Your task to perform on an android device: Open battery settings Image 0: 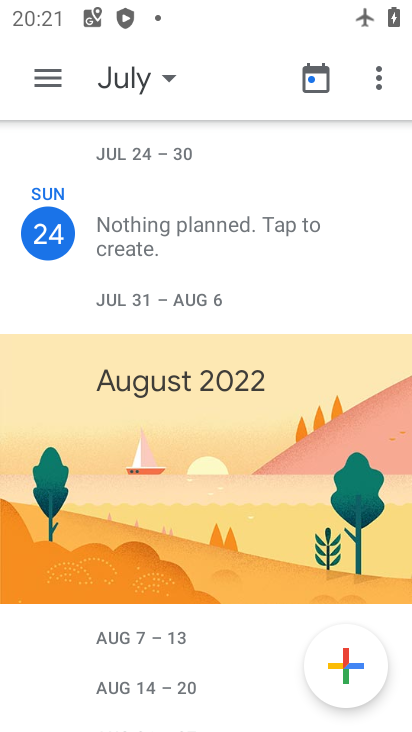
Step 0: press home button
Your task to perform on an android device: Open battery settings Image 1: 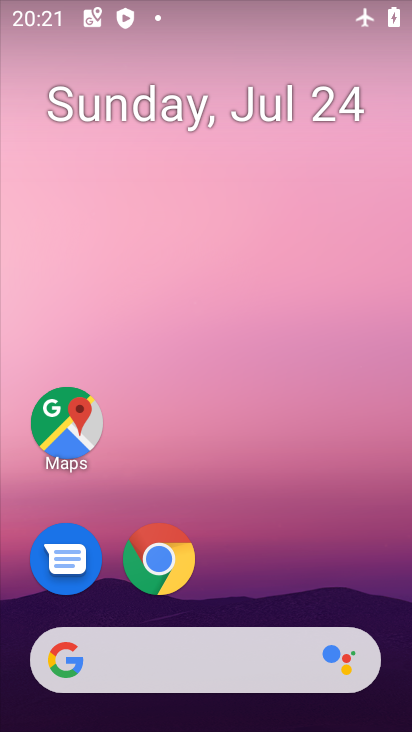
Step 1: task complete